Your task to perform on an android device: When is my next appointment? Image 0: 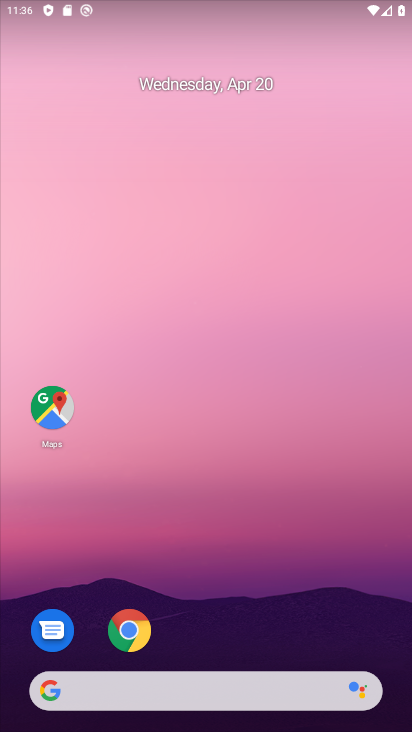
Step 0: drag from (250, 543) to (310, 134)
Your task to perform on an android device: When is my next appointment? Image 1: 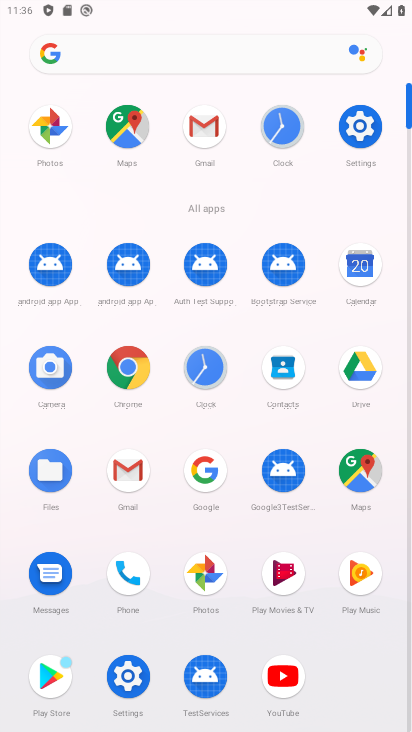
Step 1: click (355, 275)
Your task to perform on an android device: When is my next appointment? Image 2: 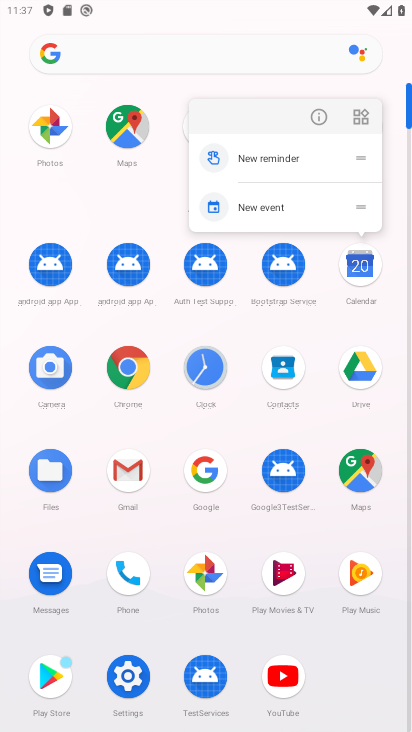
Step 2: click (320, 113)
Your task to perform on an android device: When is my next appointment? Image 3: 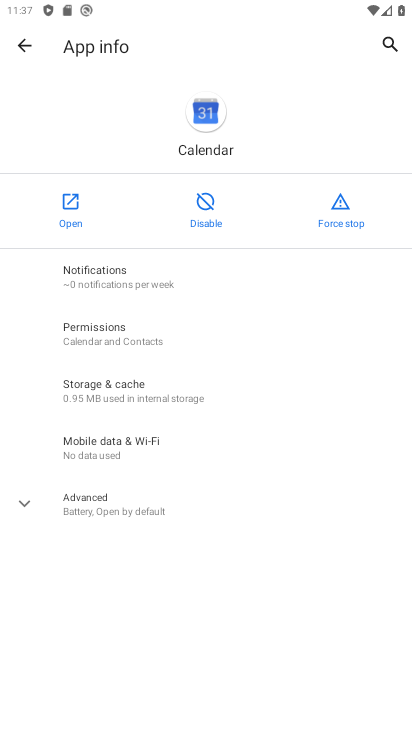
Step 3: click (58, 208)
Your task to perform on an android device: When is my next appointment? Image 4: 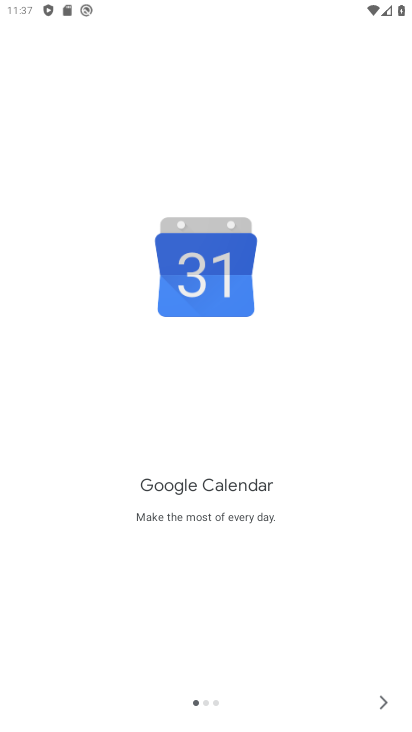
Step 4: drag from (243, 443) to (301, 205)
Your task to perform on an android device: When is my next appointment? Image 5: 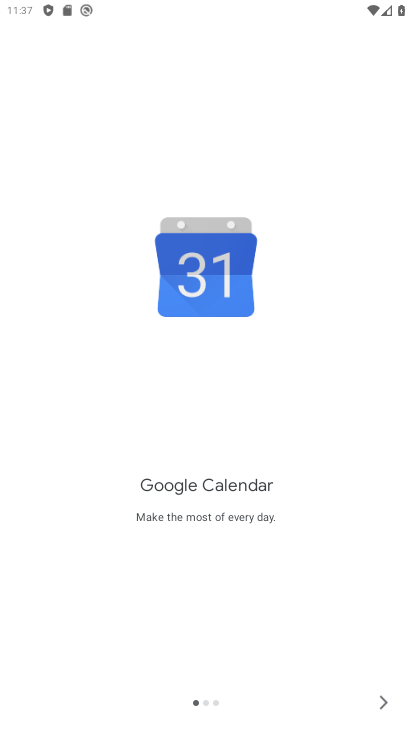
Step 5: click (382, 703)
Your task to perform on an android device: When is my next appointment? Image 6: 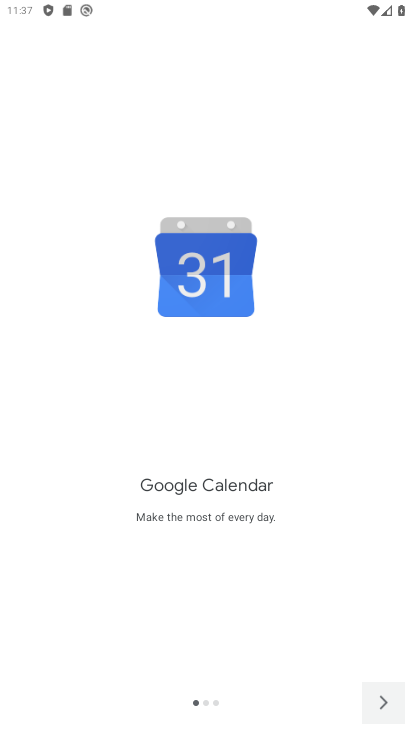
Step 6: click (382, 703)
Your task to perform on an android device: When is my next appointment? Image 7: 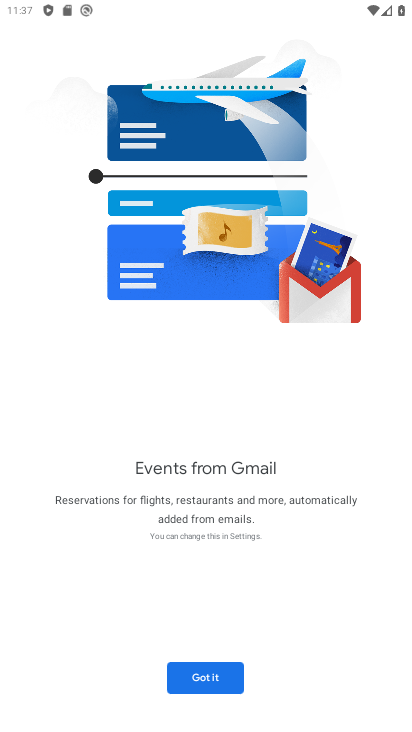
Step 7: click (381, 702)
Your task to perform on an android device: When is my next appointment? Image 8: 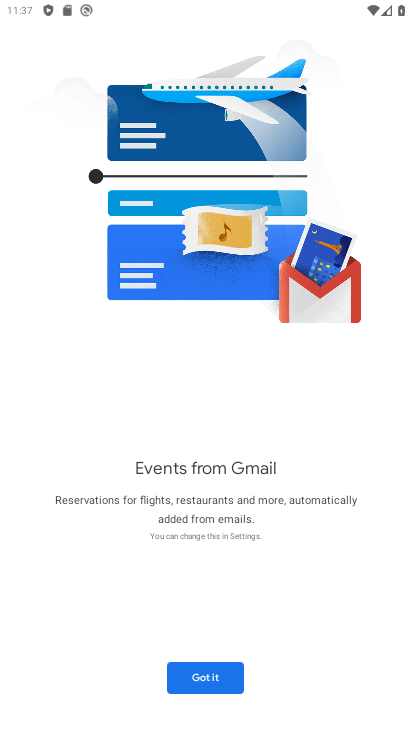
Step 8: click (198, 686)
Your task to perform on an android device: When is my next appointment? Image 9: 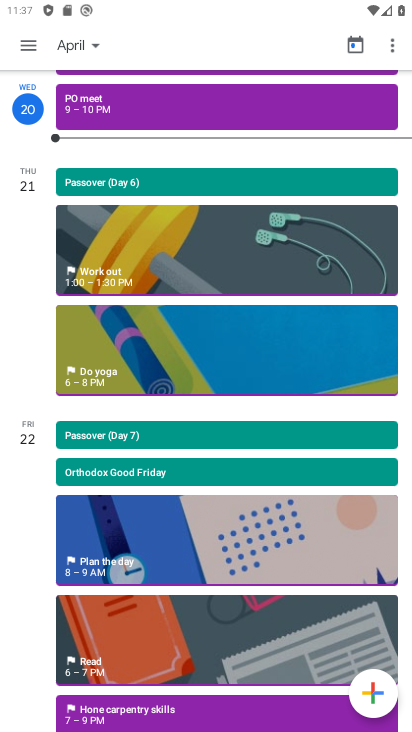
Step 9: task complete